Your task to perform on an android device: open a bookmark in the chrome app Image 0: 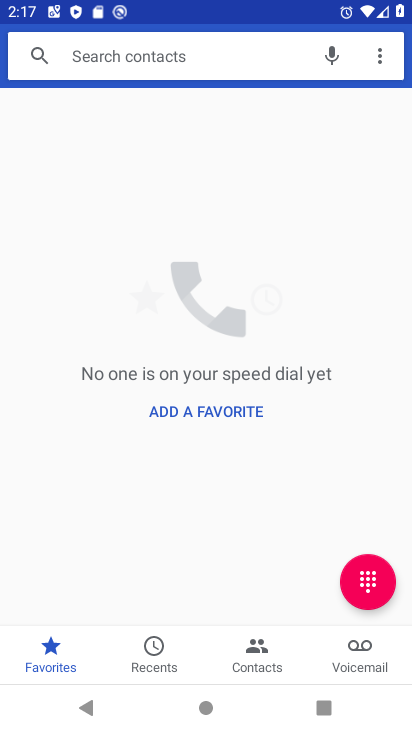
Step 0: press home button
Your task to perform on an android device: open a bookmark in the chrome app Image 1: 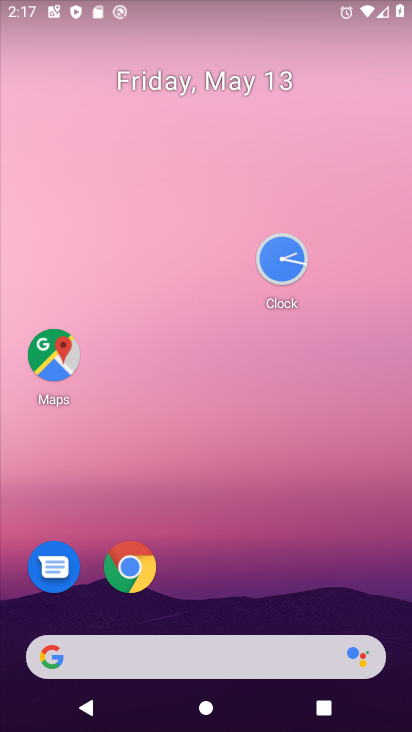
Step 1: click (156, 566)
Your task to perform on an android device: open a bookmark in the chrome app Image 2: 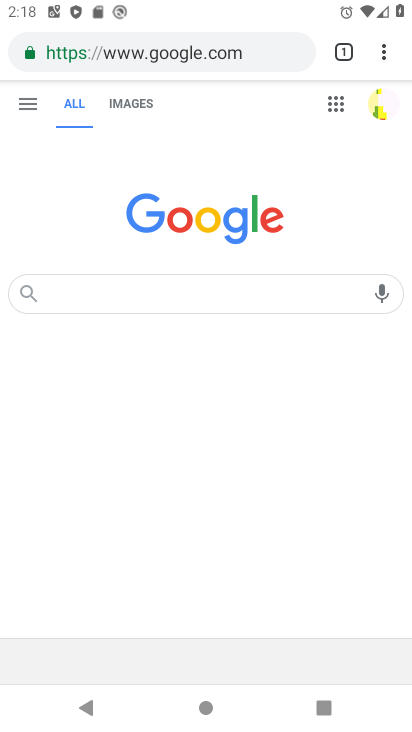
Step 2: click (397, 42)
Your task to perform on an android device: open a bookmark in the chrome app Image 3: 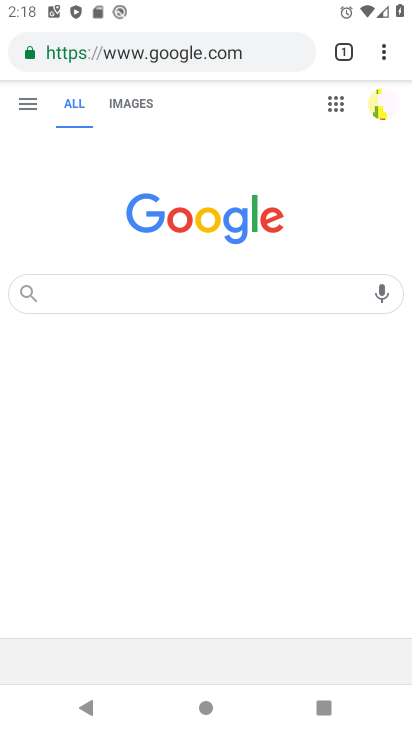
Step 3: click (380, 58)
Your task to perform on an android device: open a bookmark in the chrome app Image 4: 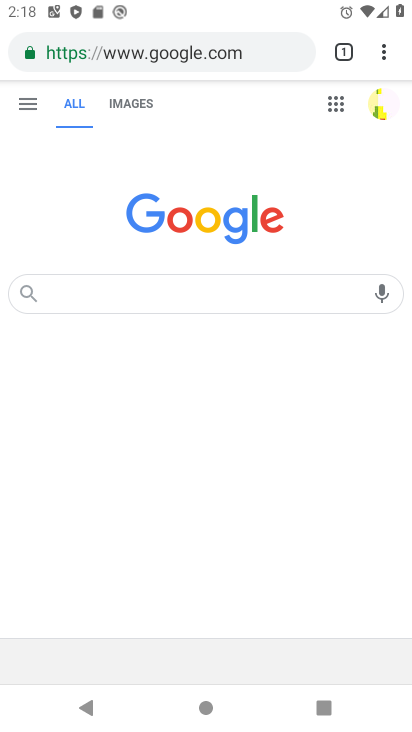
Step 4: click (380, 51)
Your task to perform on an android device: open a bookmark in the chrome app Image 5: 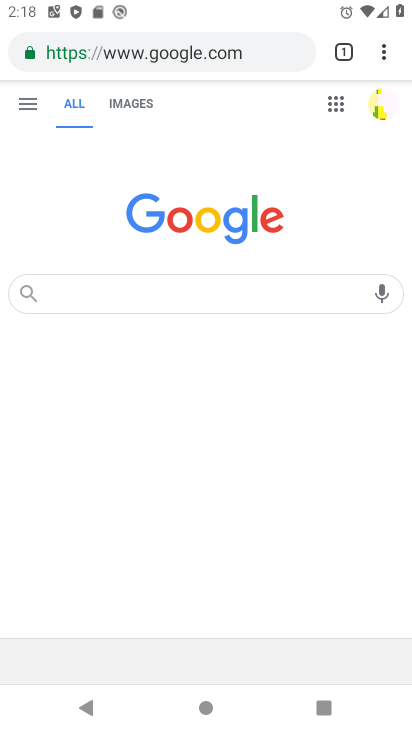
Step 5: click (380, 51)
Your task to perform on an android device: open a bookmark in the chrome app Image 6: 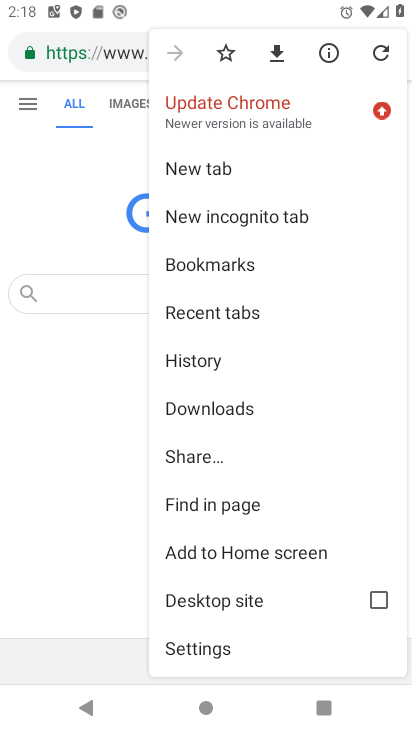
Step 6: click (196, 634)
Your task to perform on an android device: open a bookmark in the chrome app Image 7: 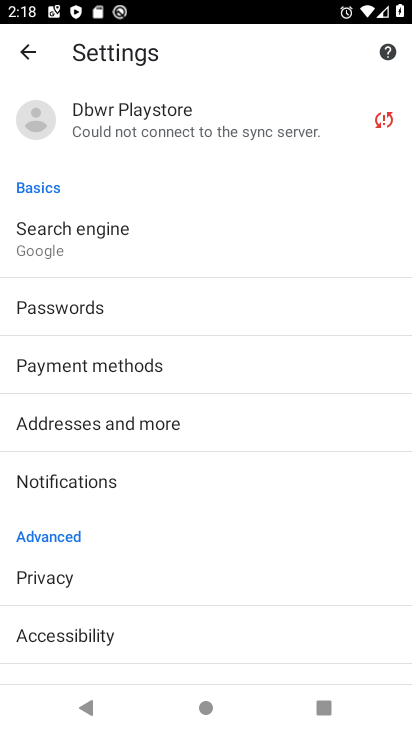
Step 7: drag from (154, 550) to (216, 348)
Your task to perform on an android device: open a bookmark in the chrome app Image 8: 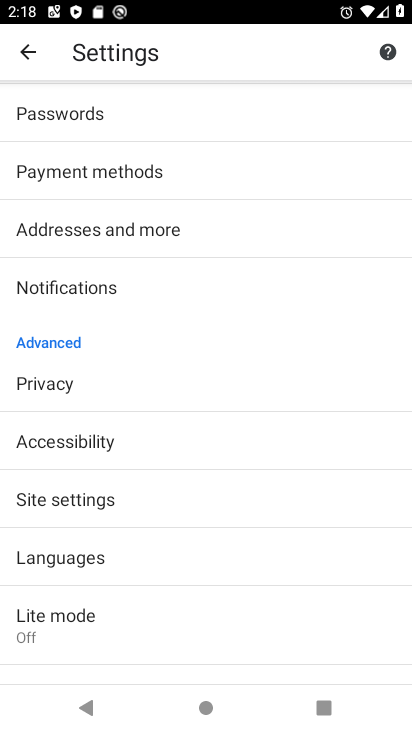
Step 8: click (28, 55)
Your task to perform on an android device: open a bookmark in the chrome app Image 9: 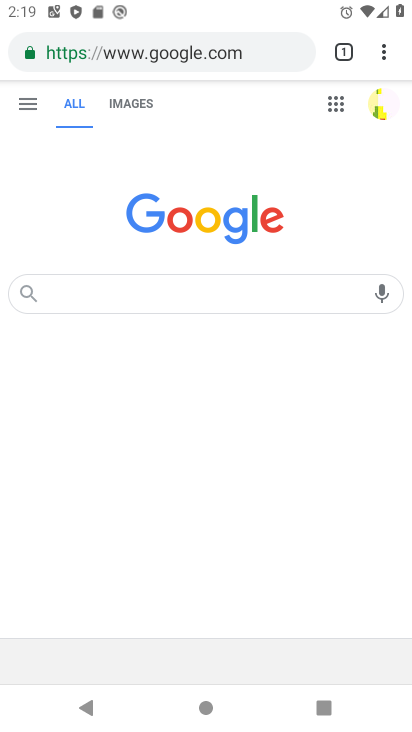
Step 9: click (91, 715)
Your task to perform on an android device: open a bookmark in the chrome app Image 10: 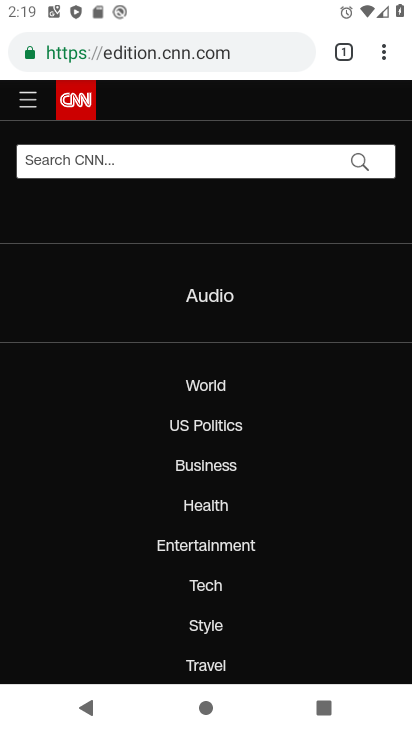
Step 10: click (91, 715)
Your task to perform on an android device: open a bookmark in the chrome app Image 11: 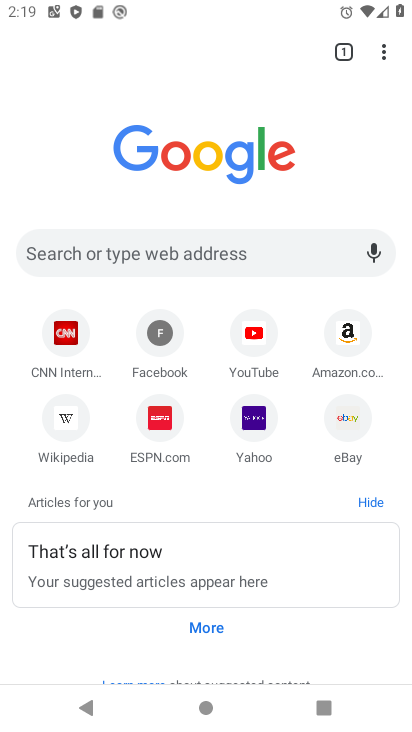
Step 11: click (175, 419)
Your task to perform on an android device: open a bookmark in the chrome app Image 12: 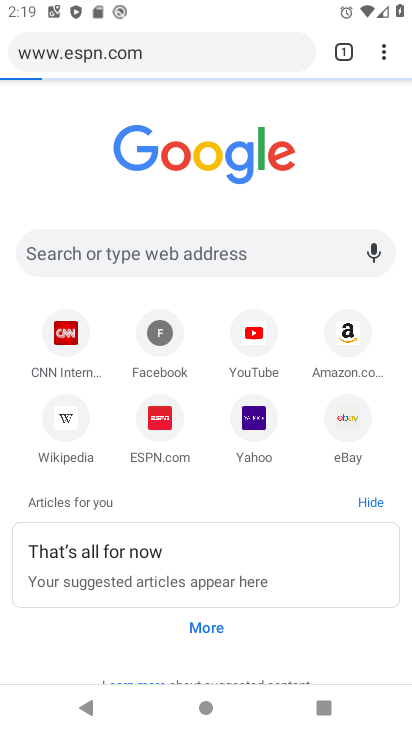
Step 12: task complete